Your task to perform on an android device: Open Google Image 0: 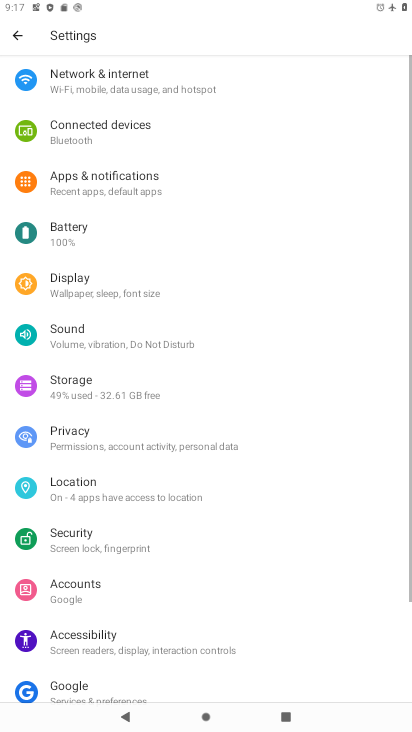
Step 0: press home button
Your task to perform on an android device: Open Google Image 1: 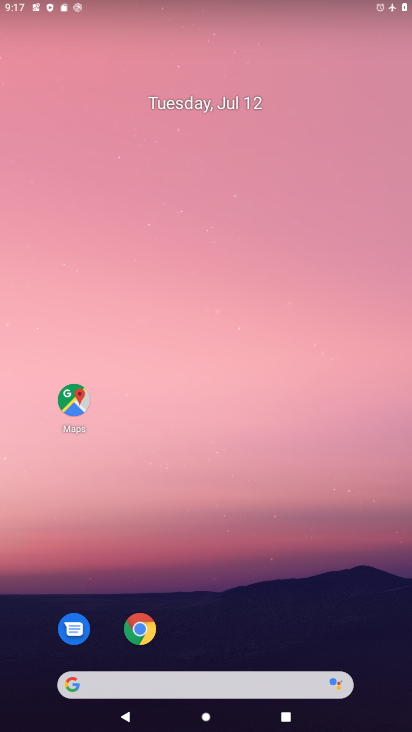
Step 1: drag from (200, 533) to (193, 215)
Your task to perform on an android device: Open Google Image 2: 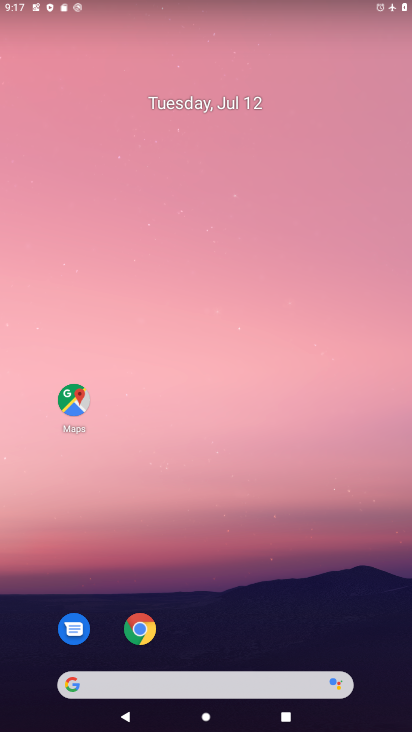
Step 2: drag from (288, 563) to (295, 300)
Your task to perform on an android device: Open Google Image 3: 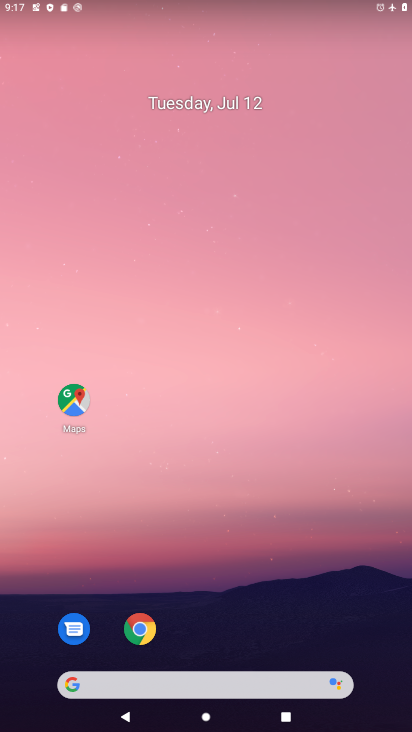
Step 3: drag from (250, 610) to (273, 21)
Your task to perform on an android device: Open Google Image 4: 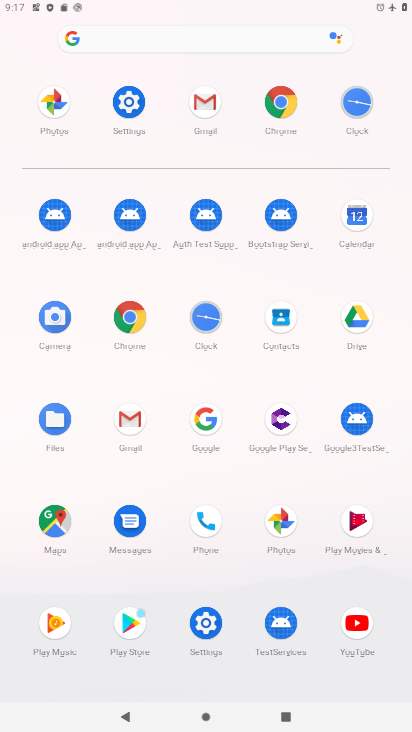
Step 4: click (202, 413)
Your task to perform on an android device: Open Google Image 5: 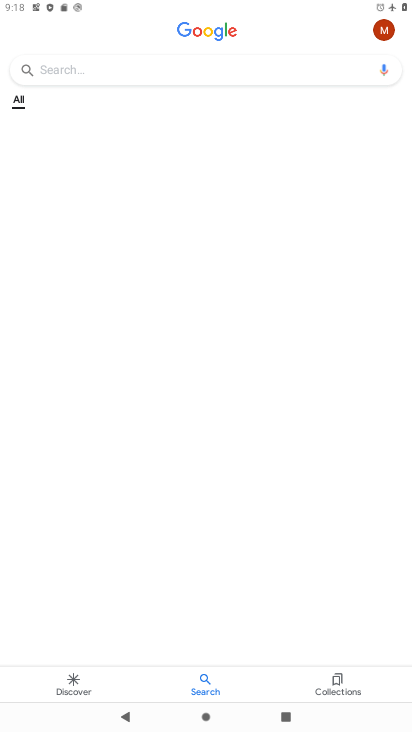
Step 5: task complete